Your task to perform on an android device: Do I have any events tomorrow? Image 0: 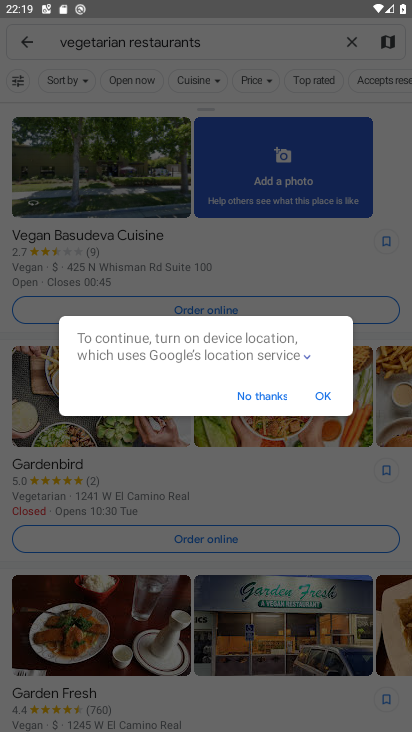
Step 0: press home button
Your task to perform on an android device: Do I have any events tomorrow? Image 1: 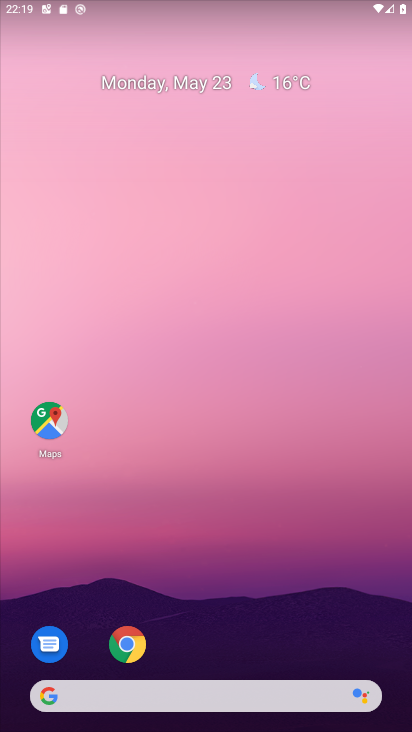
Step 1: drag from (212, 667) to (222, 32)
Your task to perform on an android device: Do I have any events tomorrow? Image 2: 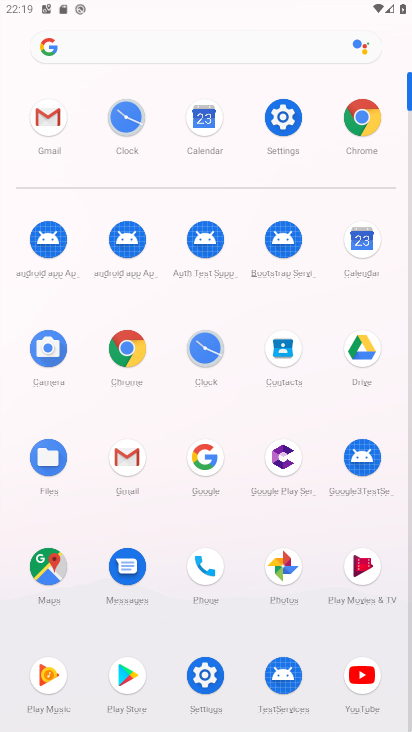
Step 2: click (359, 237)
Your task to perform on an android device: Do I have any events tomorrow? Image 3: 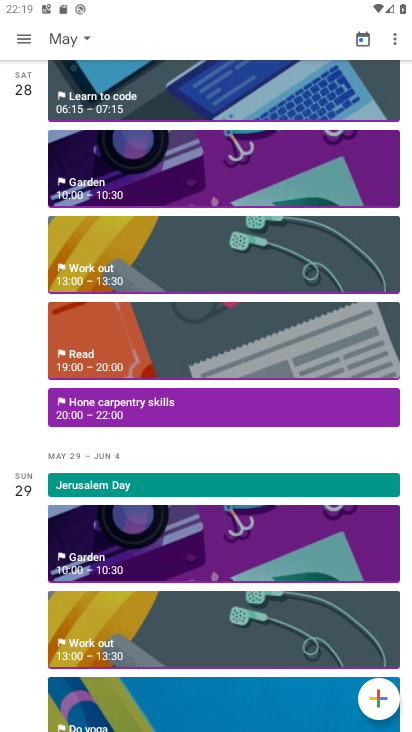
Step 3: click (85, 36)
Your task to perform on an android device: Do I have any events tomorrow? Image 4: 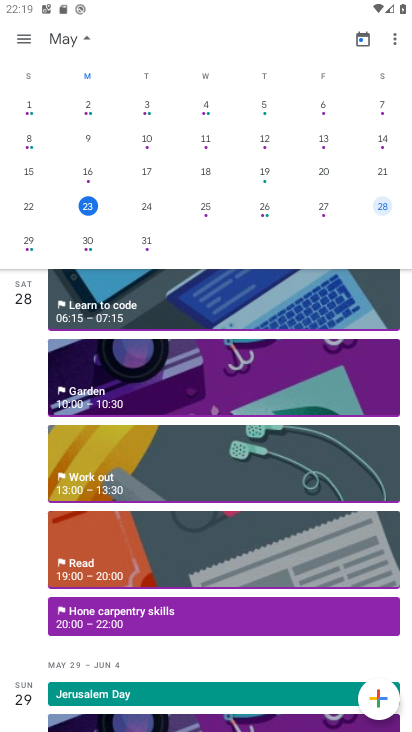
Step 4: click (146, 201)
Your task to perform on an android device: Do I have any events tomorrow? Image 5: 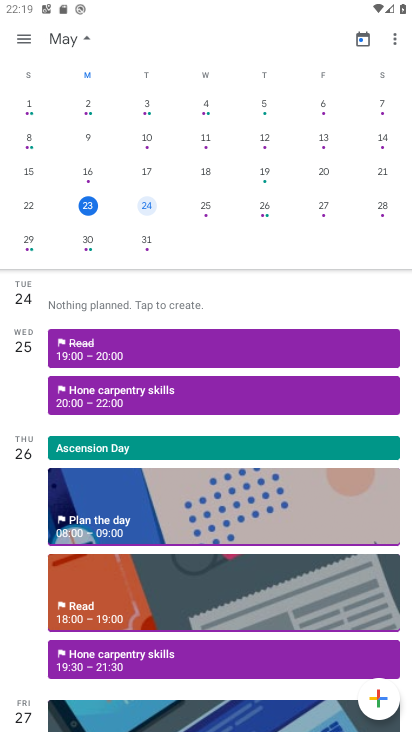
Step 5: click (84, 30)
Your task to perform on an android device: Do I have any events tomorrow? Image 6: 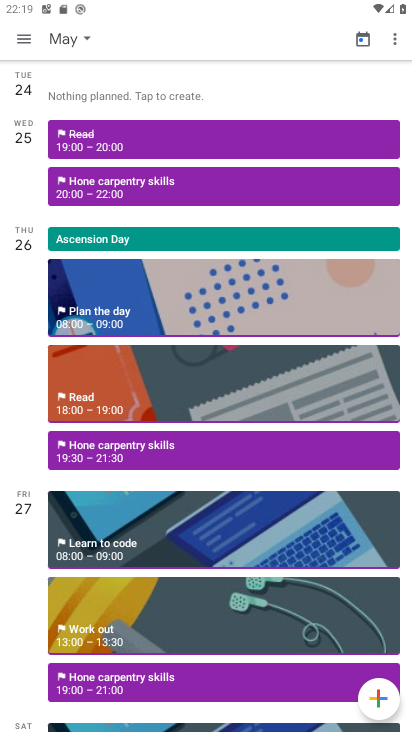
Step 6: click (40, 94)
Your task to perform on an android device: Do I have any events tomorrow? Image 7: 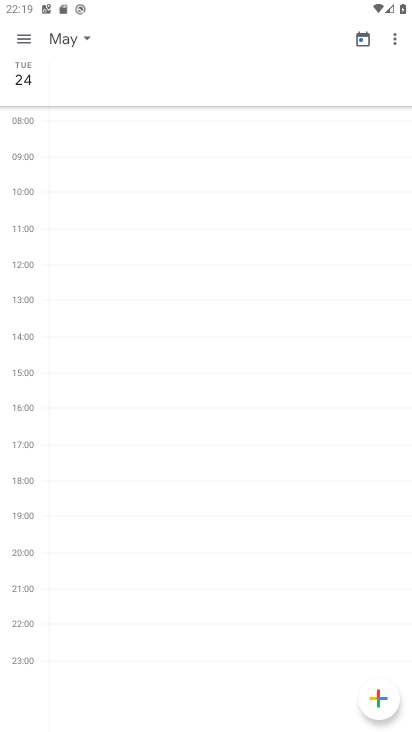
Step 7: task complete